Your task to perform on an android device: Who is the president of the United States? Image 0: 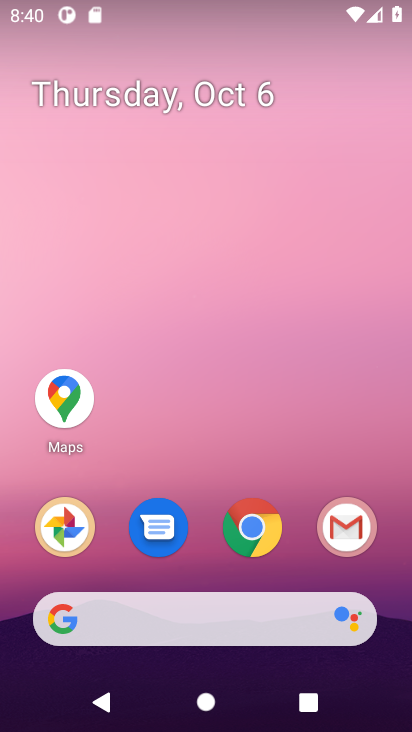
Step 0: click (243, 536)
Your task to perform on an android device: Who is the president of the United States? Image 1: 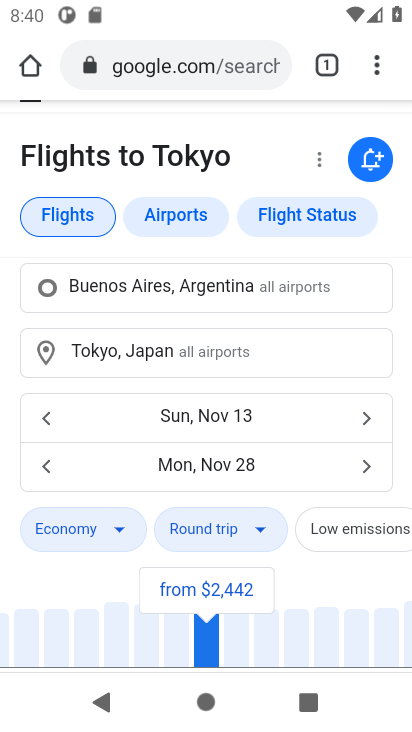
Step 1: drag from (188, 173) to (198, 537)
Your task to perform on an android device: Who is the president of the United States? Image 2: 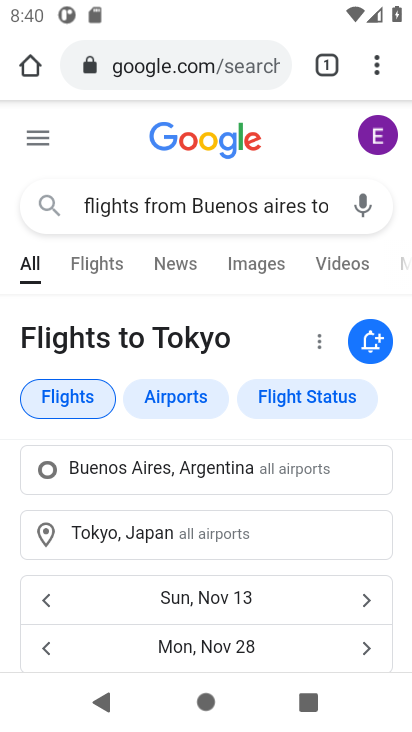
Step 2: click (183, 70)
Your task to perform on an android device: Who is the president of the United States? Image 3: 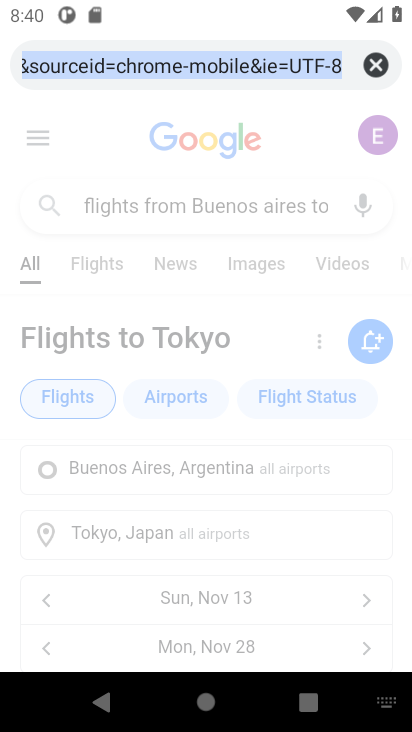
Step 3: type "Who is the president of the United States?"
Your task to perform on an android device: Who is the president of the United States? Image 4: 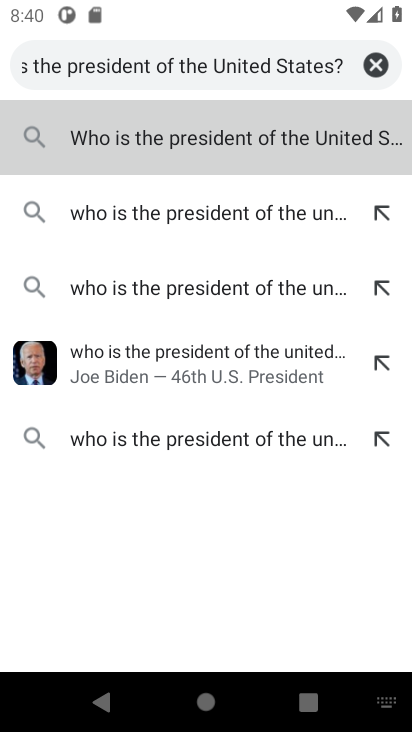
Step 4: click (175, 151)
Your task to perform on an android device: Who is the president of the United States? Image 5: 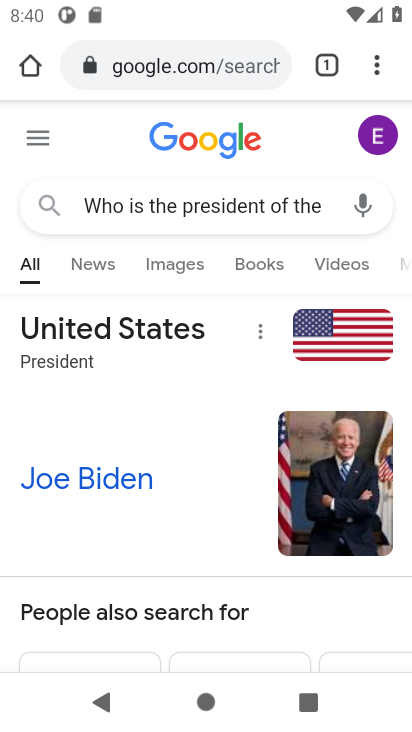
Step 5: task complete